Your task to perform on an android device: turn off location Image 0: 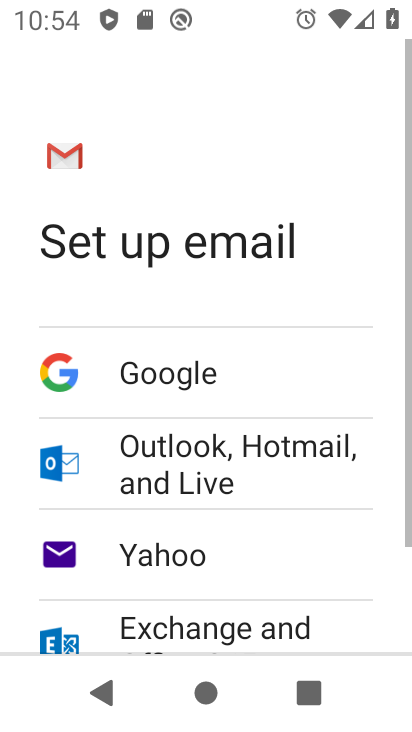
Step 0: press home button
Your task to perform on an android device: turn off location Image 1: 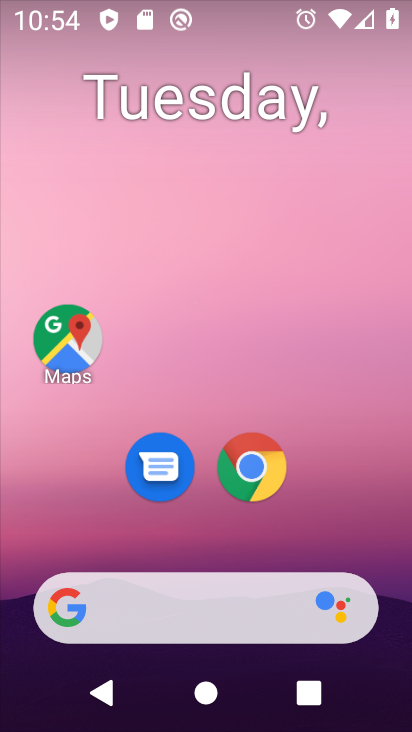
Step 1: drag from (88, 579) to (212, 92)
Your task to perform on an android device: turn off location Image 2: 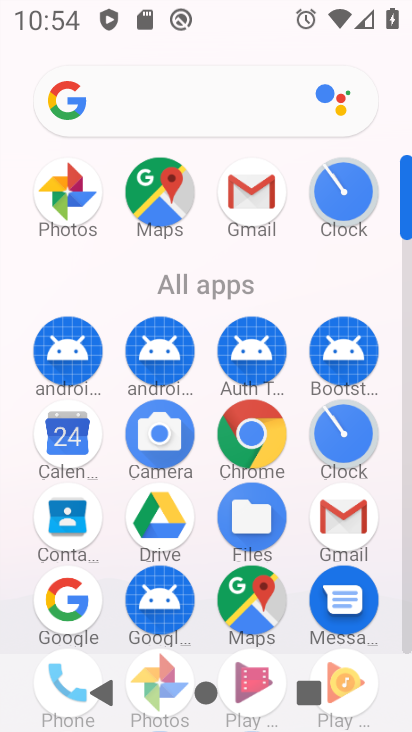
Step 2: drag from (188, 629) to (257, 227)
Your task to perform on an android device: turn off location Image 3: 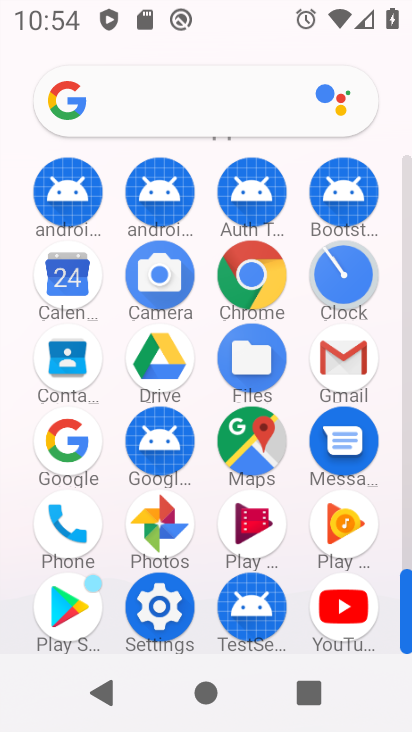
Step 3: click (162, 612)
Your task to perform on an android device: turn off location Image 4: 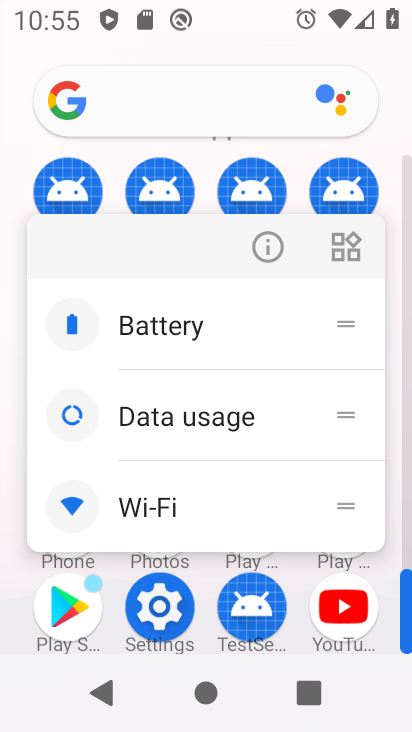
Step 4: click (164, 609)
Your task to perform on an android device: turn off location Image 5: 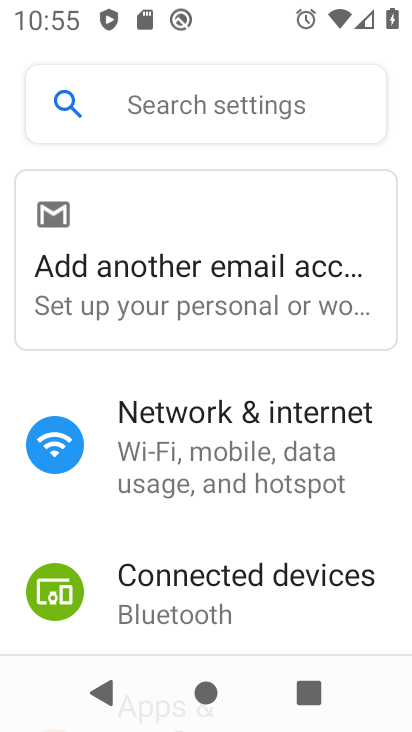
Step 5: drag from (124, 590) to (246, 133)
Your task to perform on an android device: turn off location Image 6: 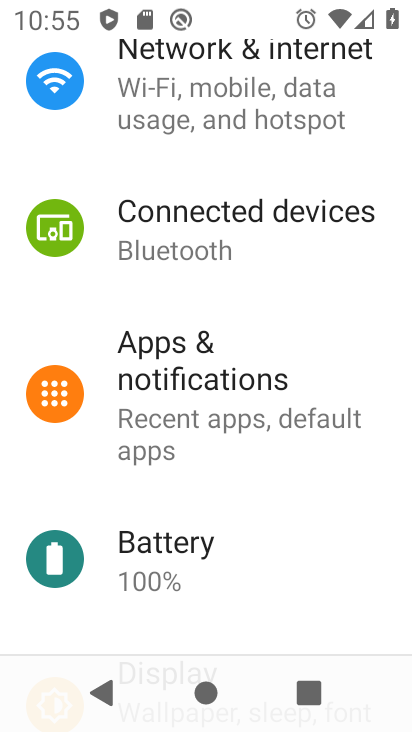
Step 6: drag from (179, 598) to (280, 139)
Your task to perform on an android device: turn off location Image 7: 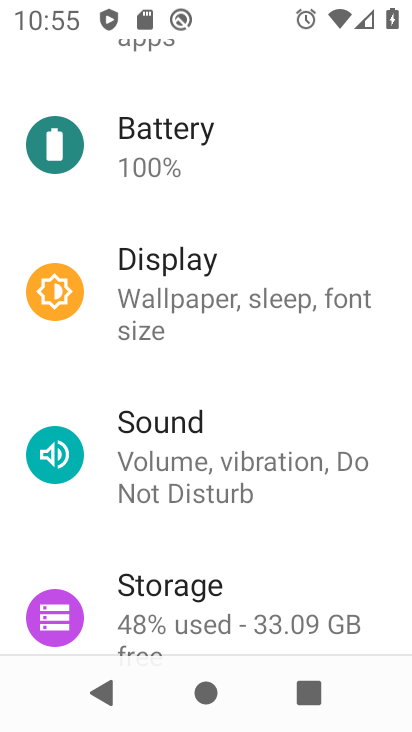
Step 7: drag from (207, 563) to (300, 165)
Your task to perform on an android device: turn off location Image 8: 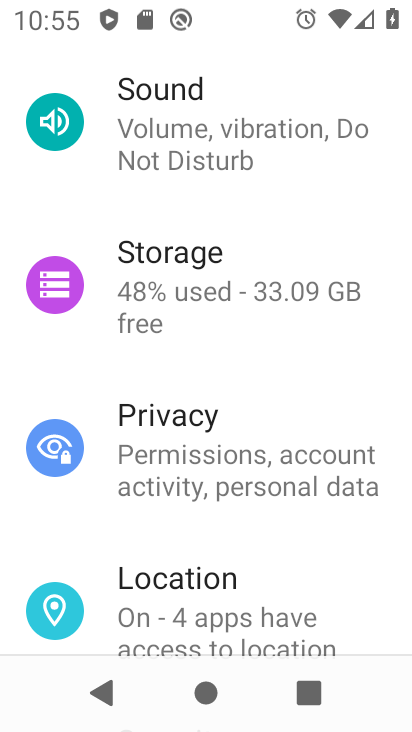
Step 8: click (167, 618)
Your task to perform on an android device: turn off location Image 9: 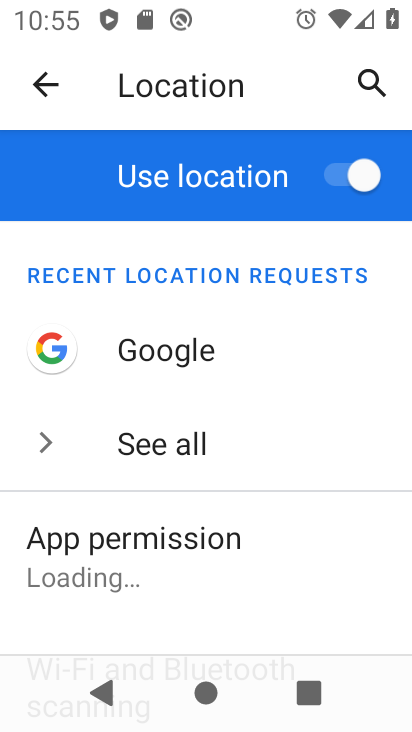
Step 9: click (330, 174)
Your task to perform on an android device: turn off location Image 10: 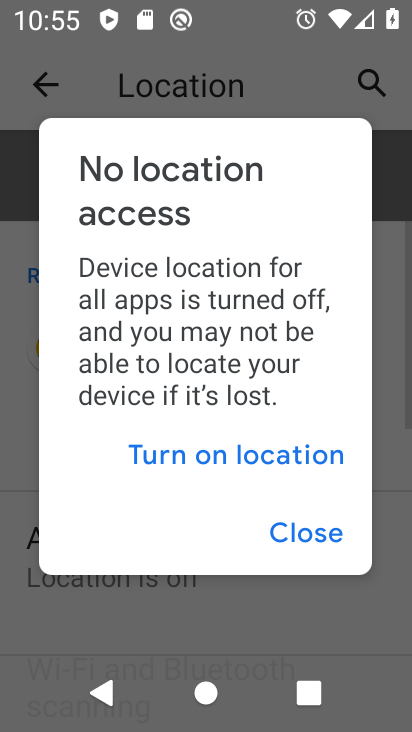
Step 10: task complete